Your task to perform on an android device: open a bookmark in the chrome app Image 0: 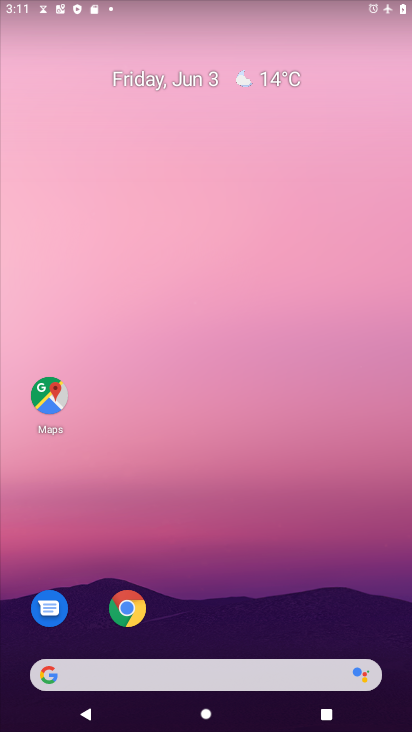
Step 0: click (144, 618)
Your task to perform on an android device: open a bookmark in the chrome app Image 1: 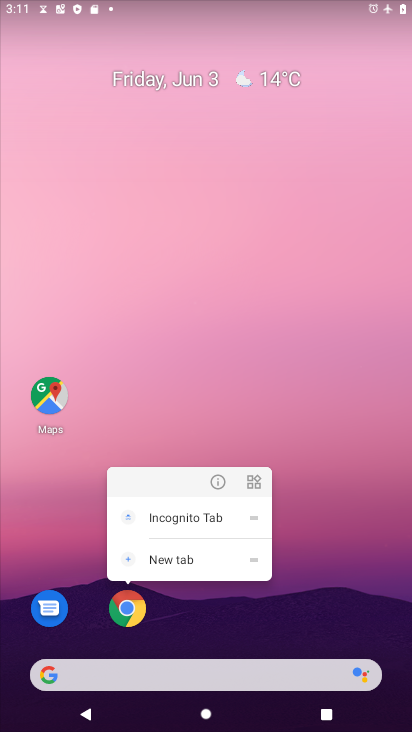
Step 1: click (144, 618)
Your task to perform on an android device: open a bookmark in the chrome app Image 2: 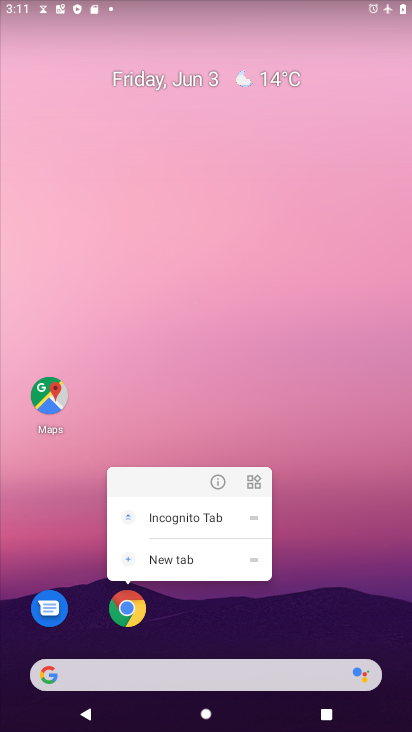
Step 2: click (144, 618)
Your task to perform on an android device: open a bookmark in the chrome app Image 3: 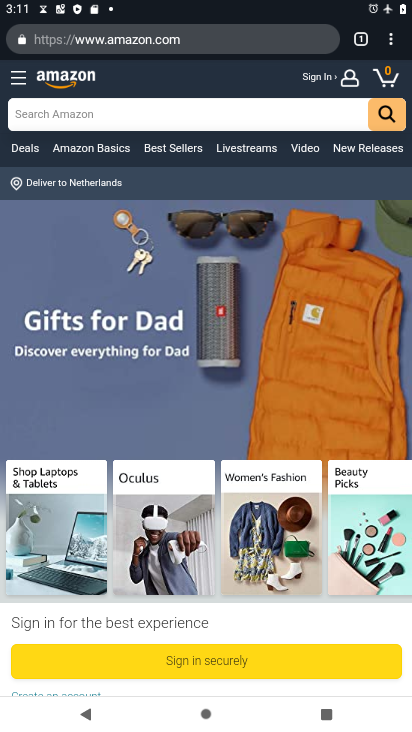
Step 3: drag from (392, 43) to (296, 194)
Your task to perform on an android device: open a bookmark in the chrome app Image 4: 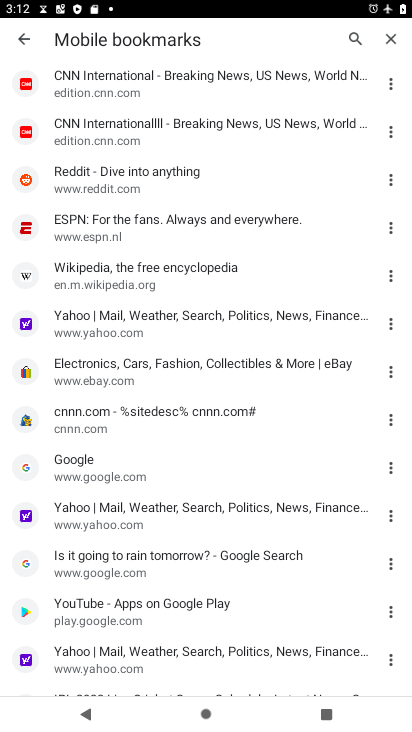
Step 4: click (145, 374)
Your task to perform on an android device: open a bookmark in the chrome app Image 5: 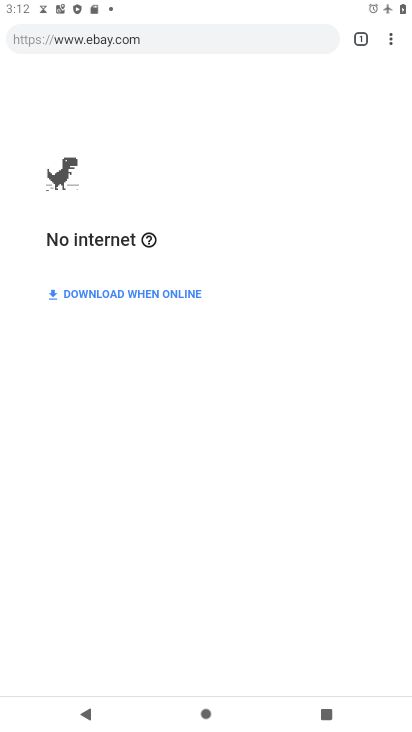
Step 5: task complete